Your task to perform on an android device: Go to notification settings Image 0: 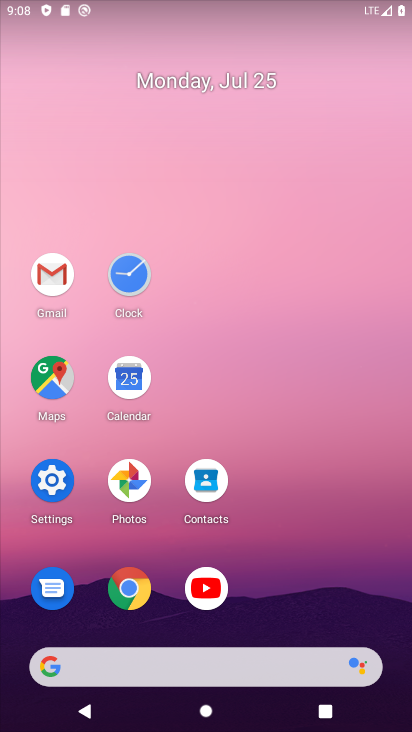
Step 0: click (53, 482)
Your task to perform on an android device: Go to notification settings Image 1: 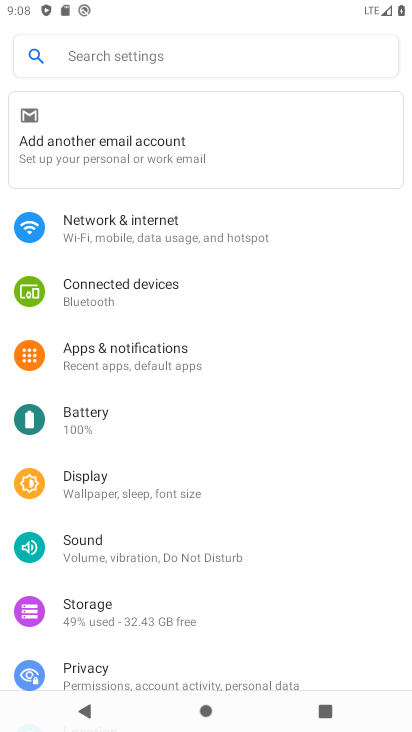
Step 1: click (119, 350)
Your task to perform on an android device: Go to notification settings Image 2: 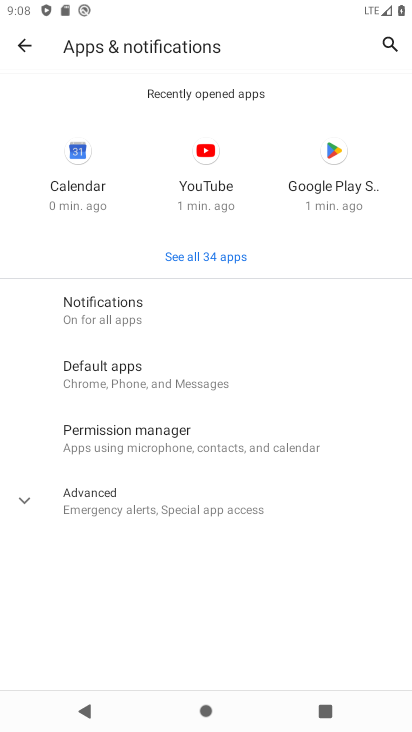
Step 2: click (115, 301)
Your task to perform on an android device: Go to notification settings Image 3: 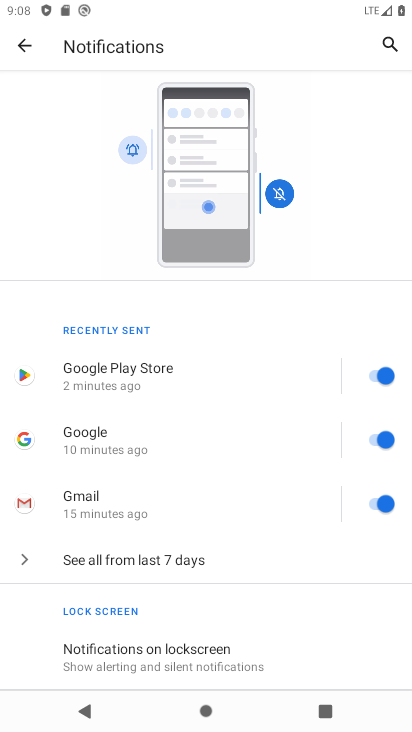
Step 3: task complete